Your task to perform on an android device: set the stopwatch Image 0: 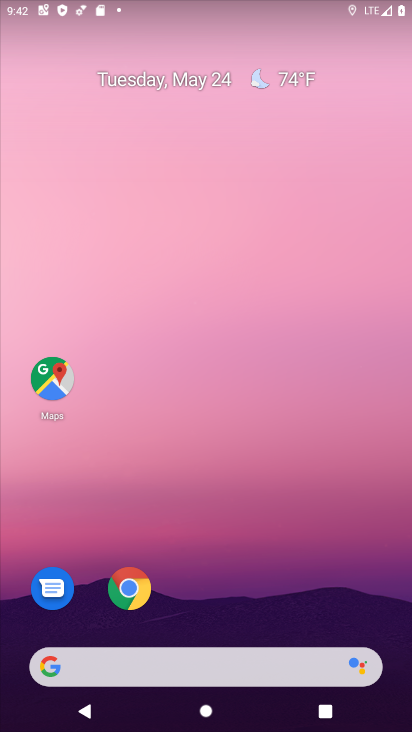
Step 0: drag from (205, 541) to (189, 30)
Your task to perform on an android device: set the stopwatch Image 1: 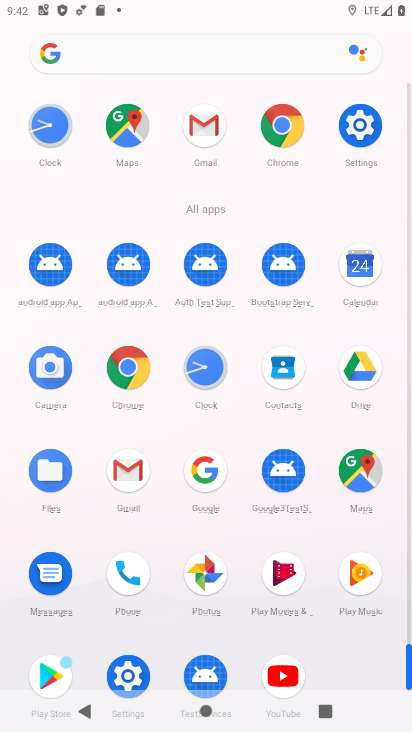
Step 1: drag from (7, 571) to (0, 292)
Your task to perform on an android device: set the stopwatch Image 2: 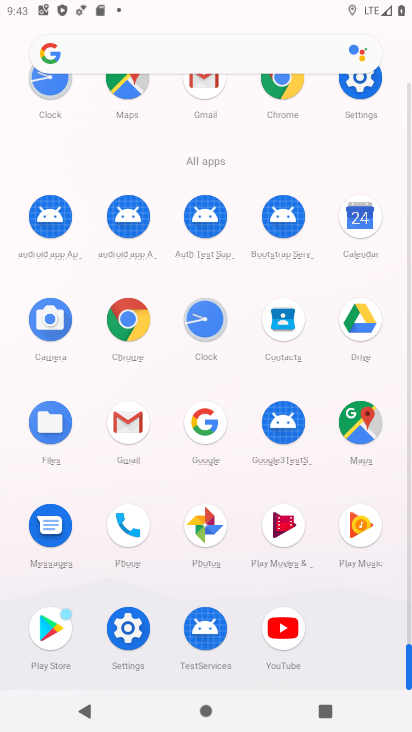
Step 2: click (205, 314)
Your task to perform on an android device: set the stopwatch Image 3: 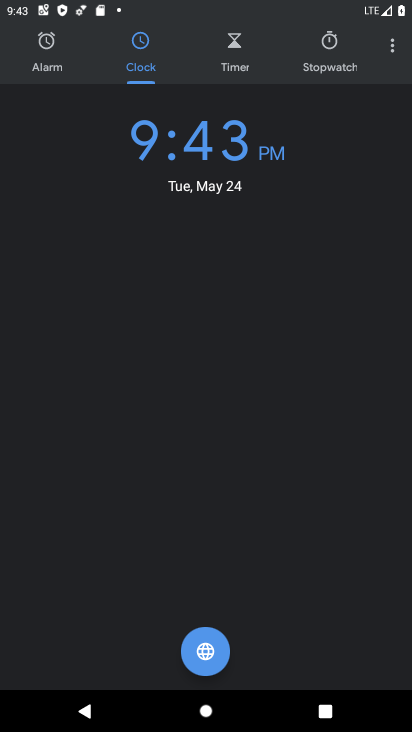
Step 3: click (329, 45)
Your task to perform on an android device: set the stopwatch Image 4: 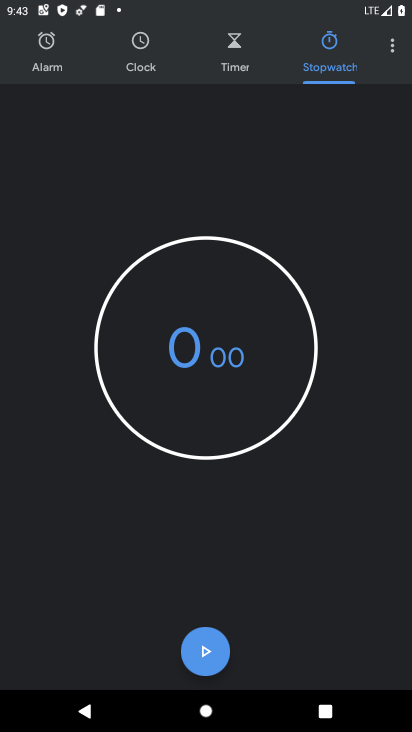
Step 4: click (212, 644)
Your task to perform on an android device: set the stopwatch Image 5: 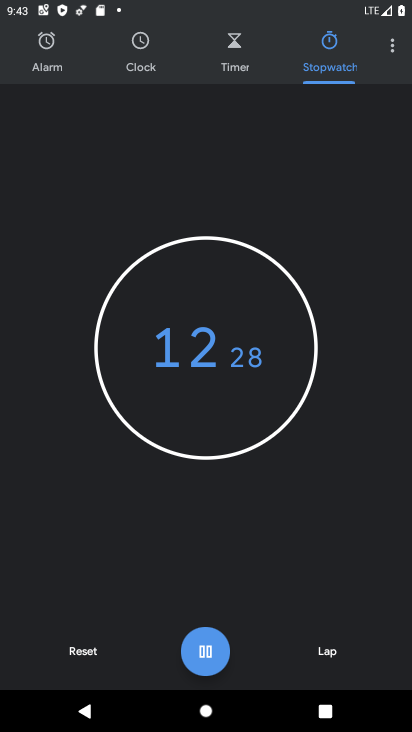
Step 5: task complete